Your task to perform on an android device: open wifi settings Image 0: 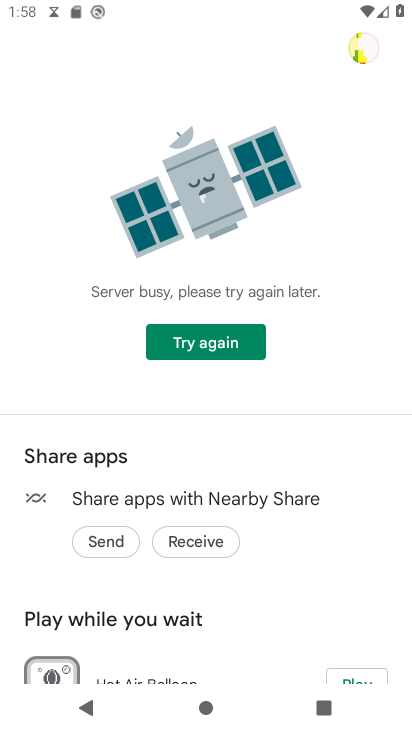
Step 0: press home button
Your task to perform on an android device: open wifi settings Image 1: 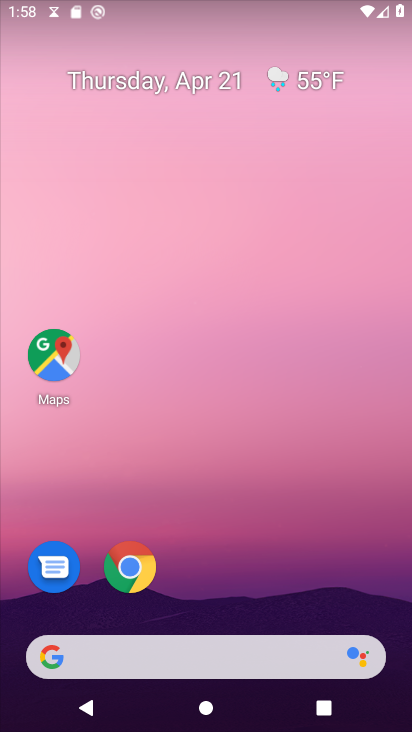
Step 1: drag from (185, 655) to (306, 80)
Your task to perform on an android device: open wifi settings Image 2: 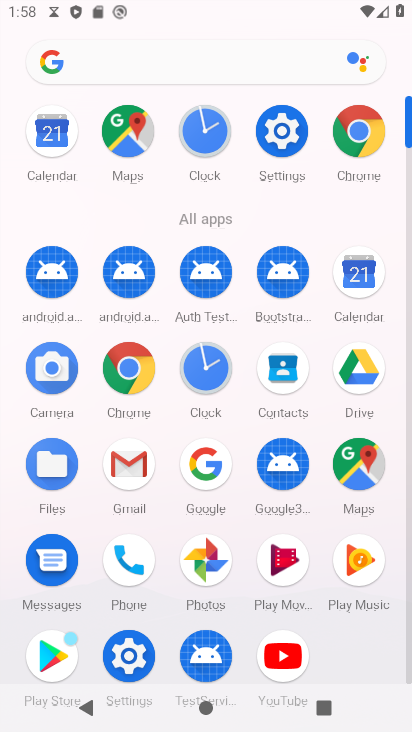
Step 2: click (282, 141)
Your task to perform on an android device: open wifi settings Image 3: 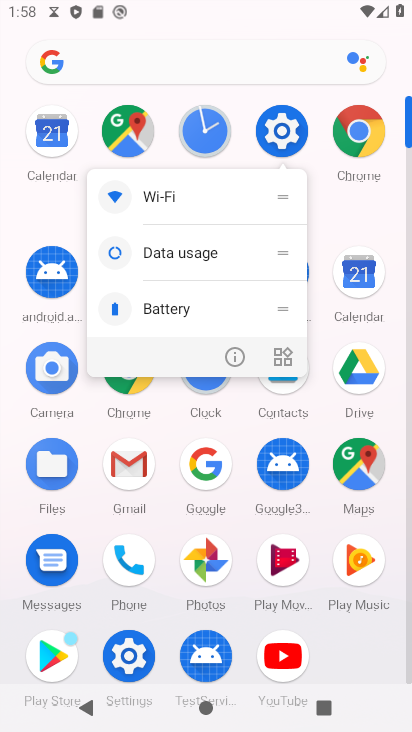
Step 3: click (293, 128)
Your task to perform on an android device: open wifi settings Image 4: 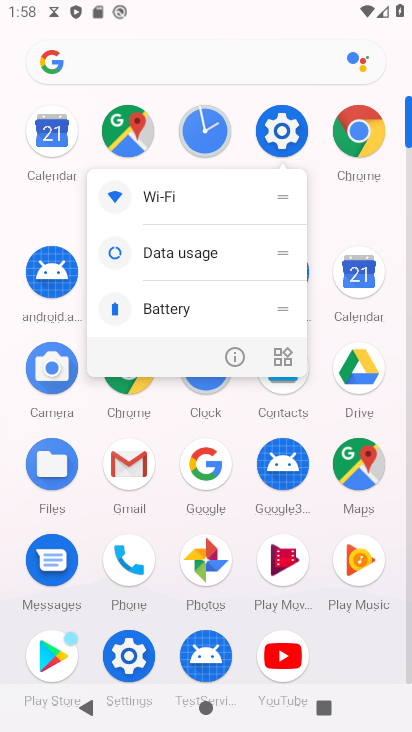
Step 4: click (290, 130)
Your task to perform on an android device: open wifi settings Image 5: 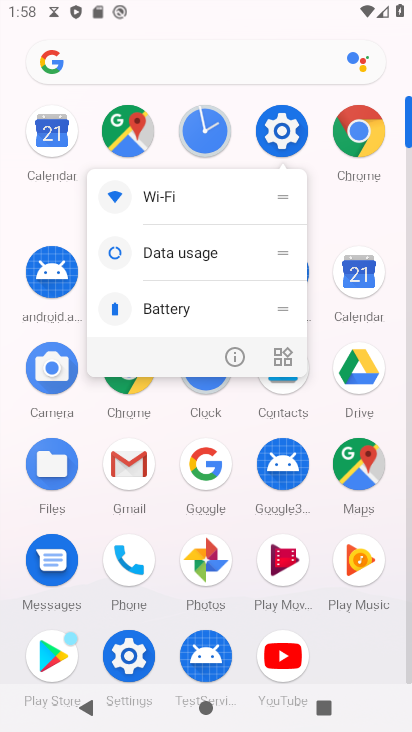
Step 5: click (280, 135)
Your task to perform on an android device: open wifi settings Image 6: 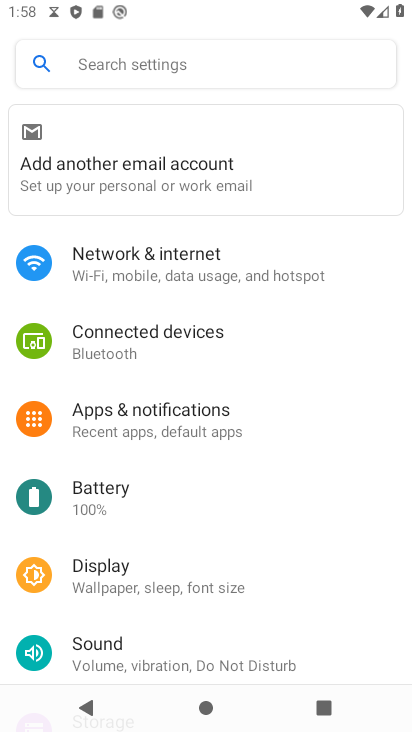
Step 6: click (182, 248)
Your task to perform on an android device: open wifi settings Image 7: 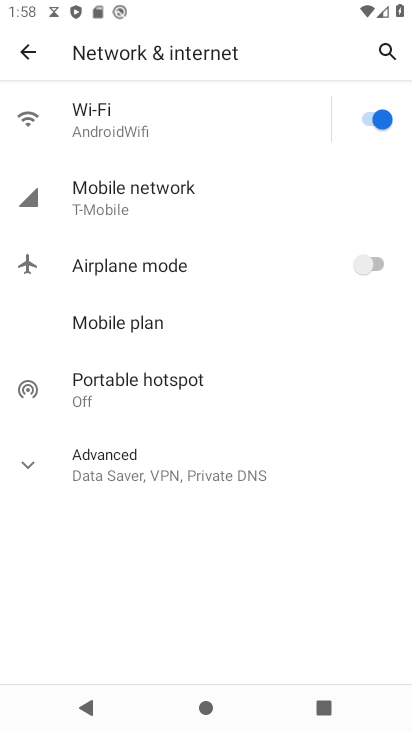
Step 7: click (151, 120)
Your task to perform on an android device: open wifi settings Image 8: 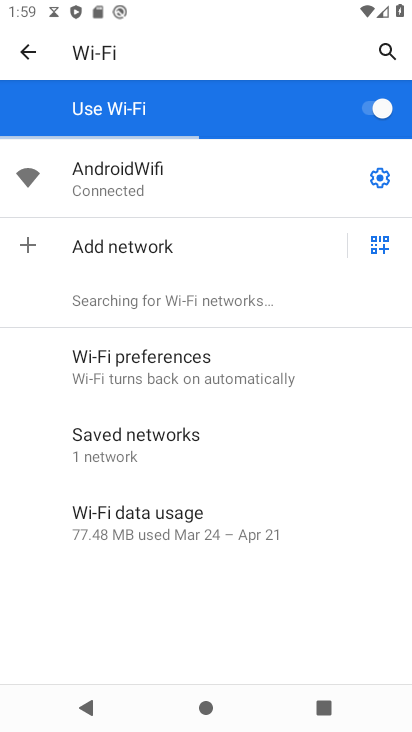
Step 8: task complete